Your task to perform on an android device: snooze an email in the gmail app Image 0: 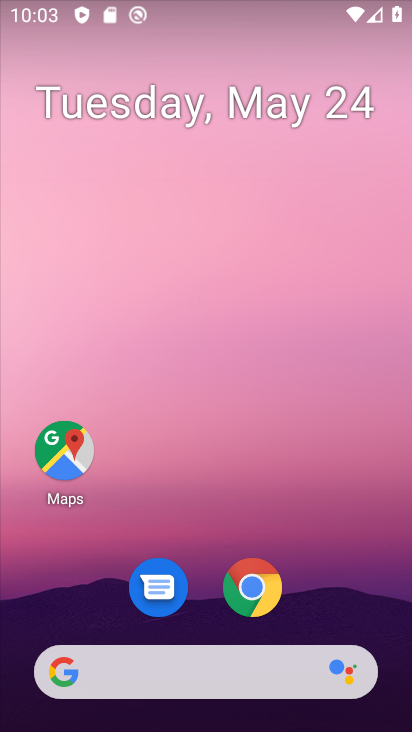
Step 0: drag from (342, 569) to (407, 192)
Your task to perform on an android device: snooze an email in the gmail app Image 1: 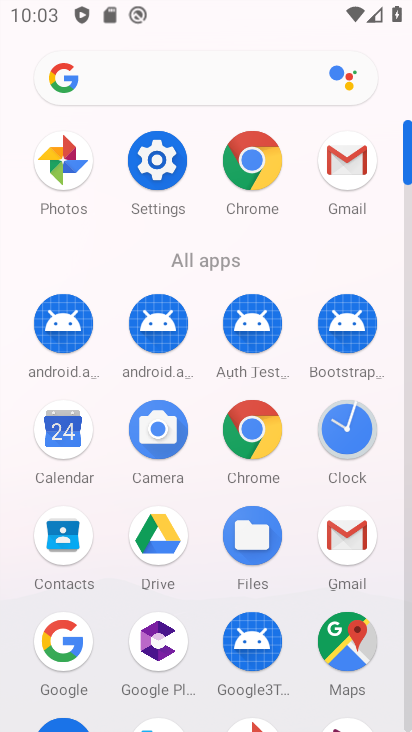
Step 1: click (358, 151)
Your task to perform on an android device: snooze an email in the gmail app Image 2: 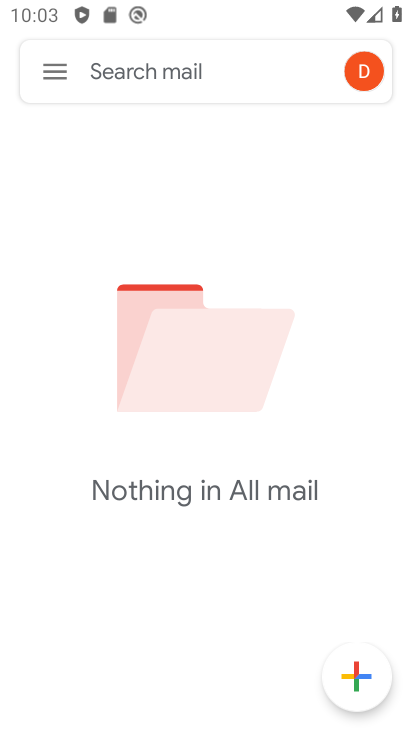
Step 2: click (49, 71)
Your task to perform on an android device: snooze an email in the gmail app Image 3: 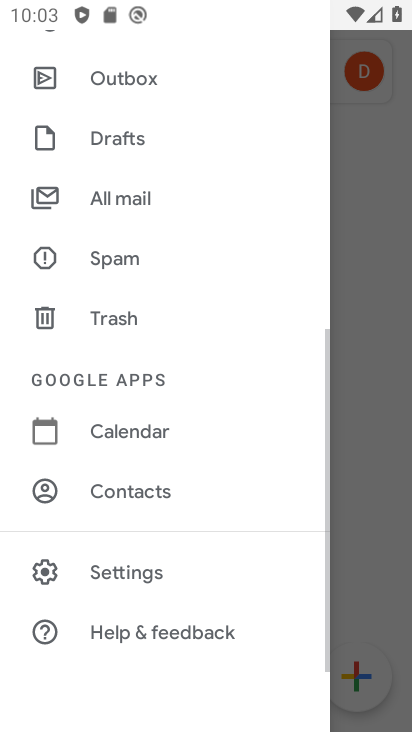
Step 3: task complete